Your task to perform on an android device: Go to notification settings Image 0: 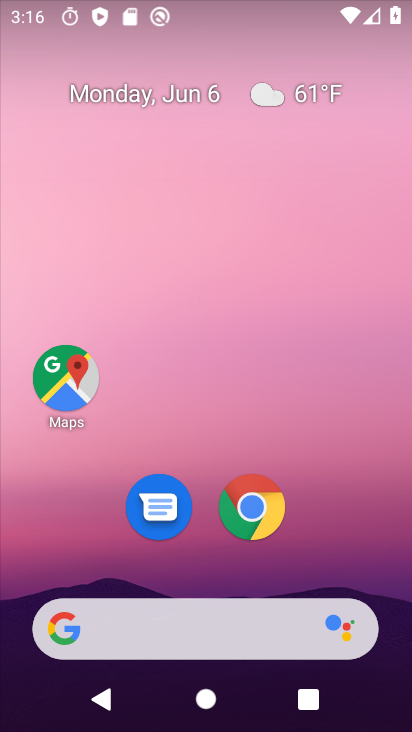
Step 0: drag from (198, 576) to (224, 148)
Your task to perform on an android device: Go to notification settings Image 1: 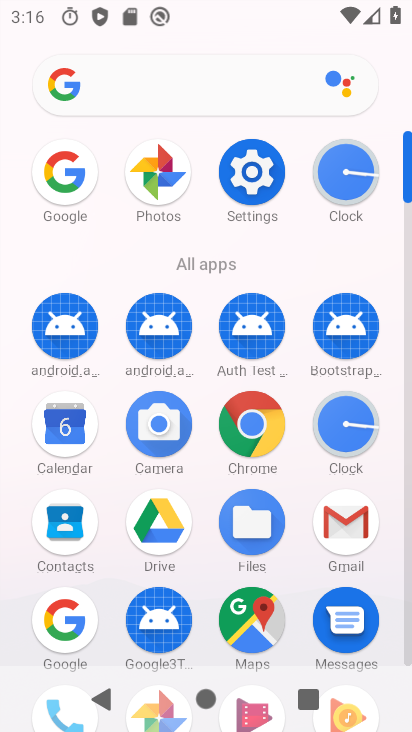
Step 1: click (242, 179)
Your task to perform on an android device: Go to notification settings Image 2: 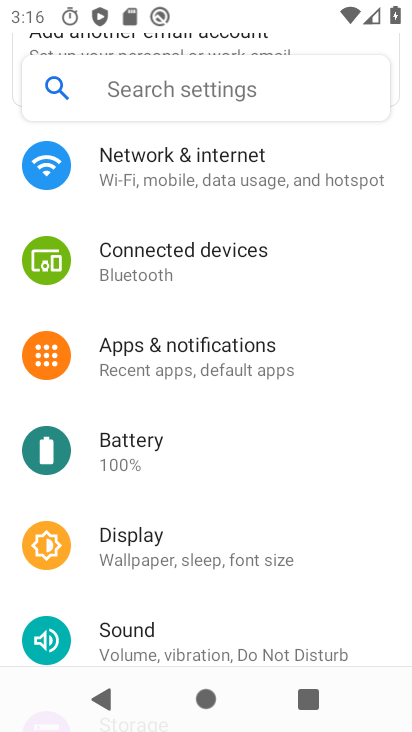
Step 2: click (233, 339)
Your task to perform on an android device: Go to notification settings Image 3: 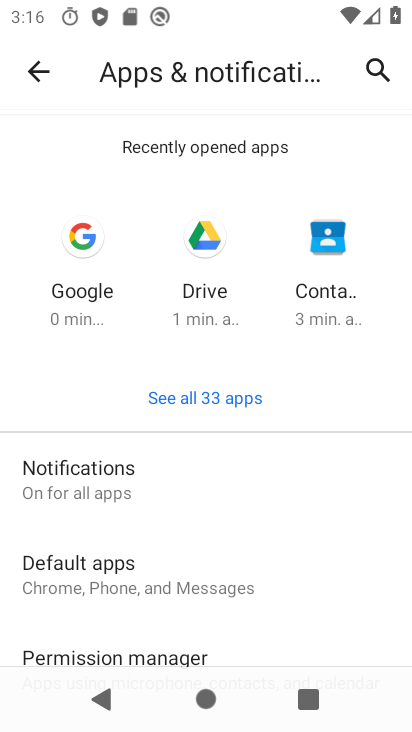
Step 3: click (173, 487)
Your task to perform on an android device: Go to notification settings Image 4: 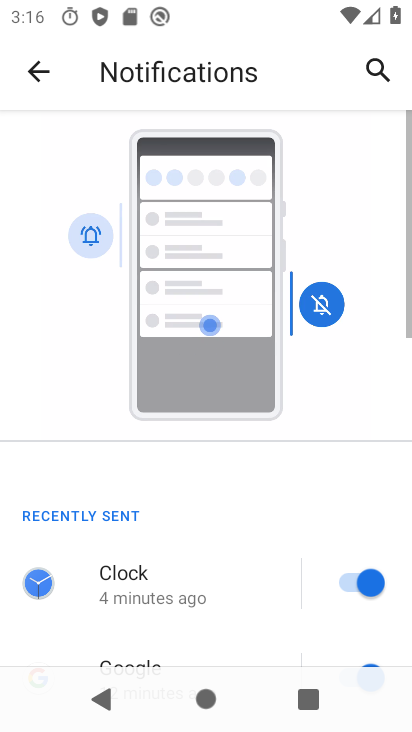
Step 4: task complete